Your task to perform on an android device: change text size in settings app Image 0: 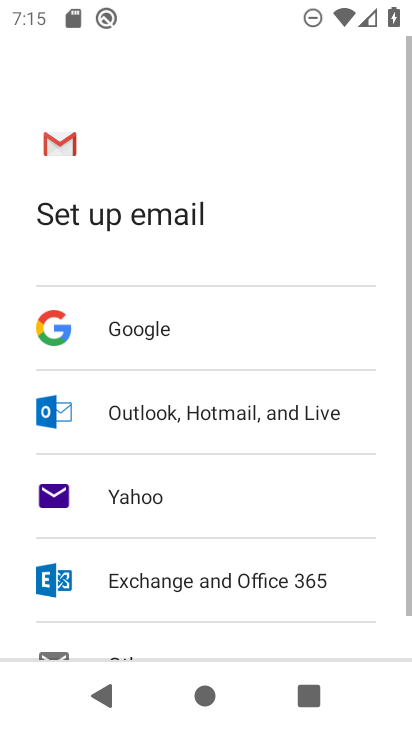
Step 0: press home button
Your task to perform on an android device: change text size in settings app Image 1: 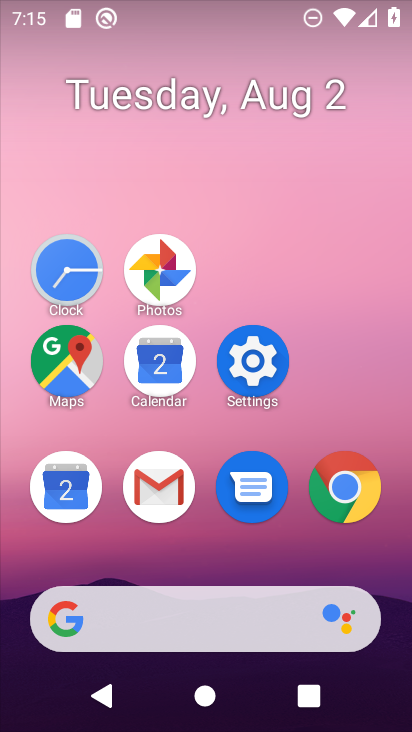
Step 1: click (259, 360)
Your task to perform on an android device: change text size in settings app Image 2: 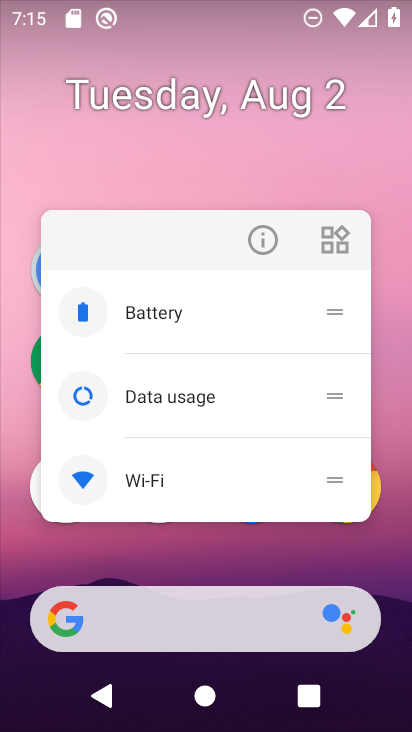
Step 2: click (194, 157)
Your task to perform on an android device: change text size in settings app Image 3: 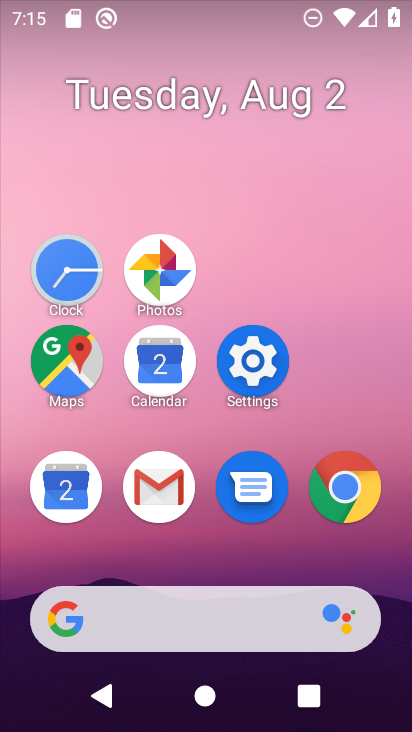
Step 3: click (253, 367)
Your task to perform on an android device: change text size in settings app Image 4: 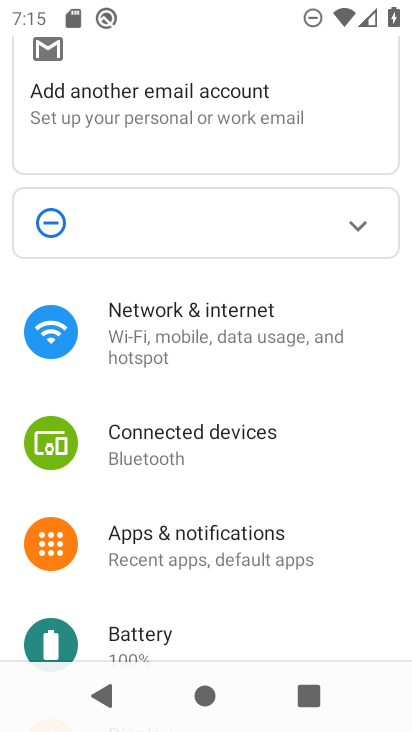
Step 4: drag from (255, 601) to (215, 290)
Your task to perform on an android device: change text size in settings app Image 5: 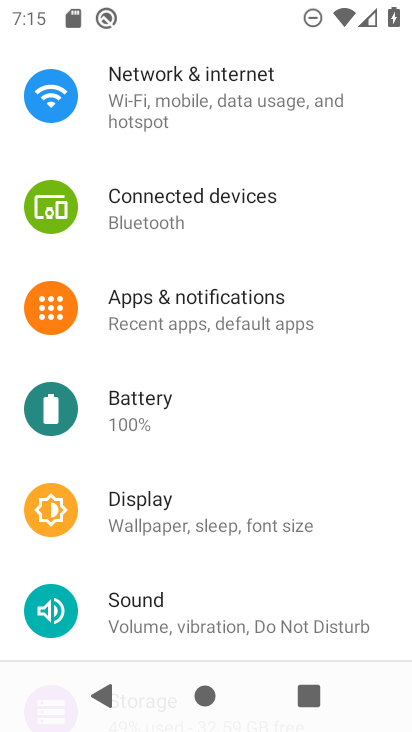
Step 5: click (144, 503)
Your task to perform on an android device: change text size in settings app Image 6: 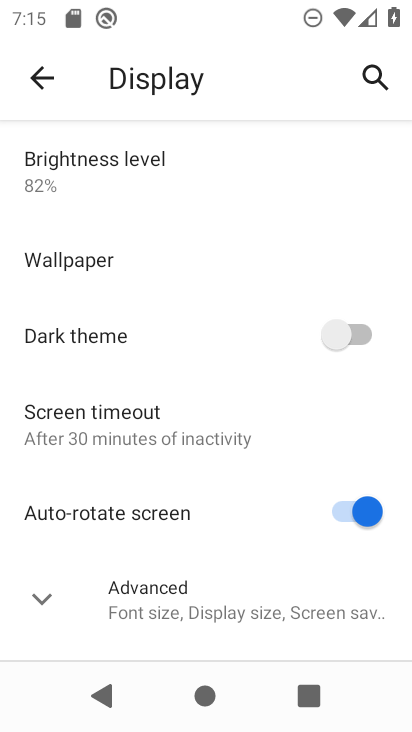
Step 6: drag from (190, 557) to (185, 237)
Your task to perform on an android device: change text size in settings app Image 7: 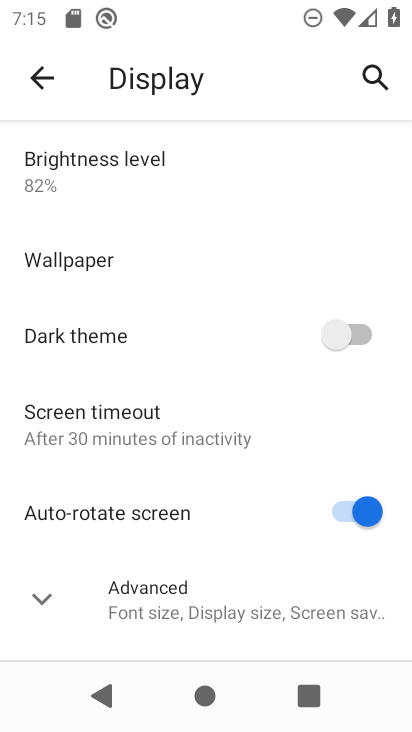
Step 7: drag from (144, 551) to (155, 317)
Your task to perform on an android device: change text size in settings app Image 8: 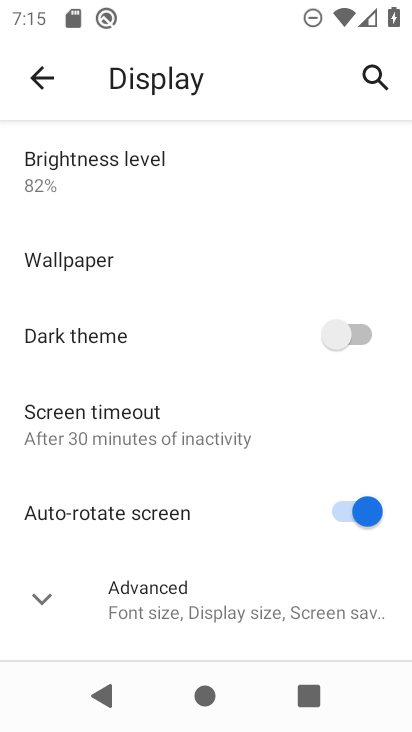
Step 8: click (116, 598)
Your task to perform on an android device: change text size in settings app Image 9: 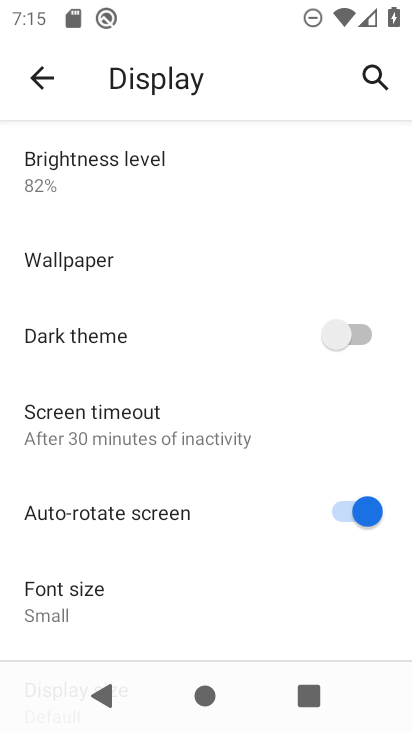
Step 9: drag from (165, 577) to (142, 273)
Your task to perform on an android device: change text size in settings app Image 10: 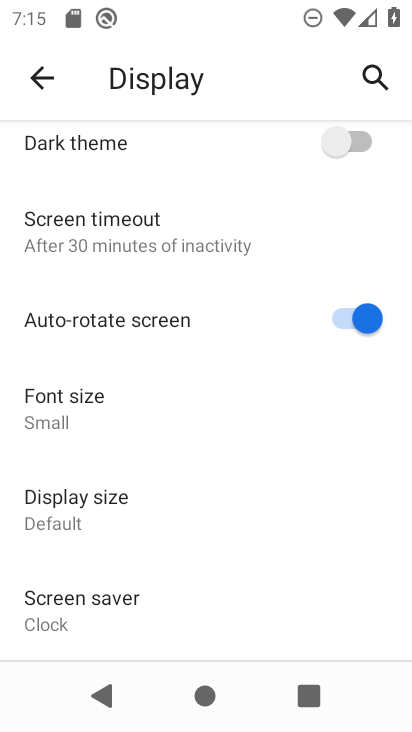
Step 10: click (47, 398)
Your task to perform on an android device: change text size in settings app Image 11: 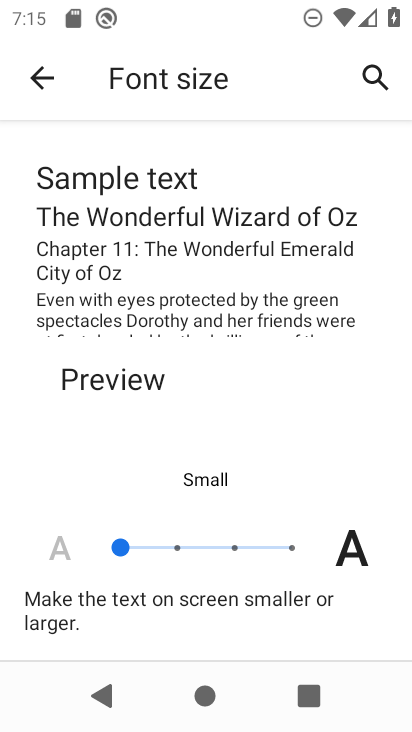
Step 11: click (164, 551)
Your task to perform on an android device: change text size in settings app Image 12: 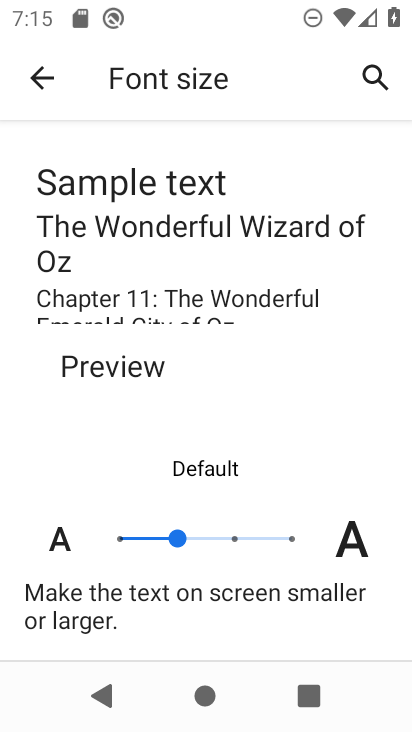
Step 12: task complete